Your task to perform on an android device: delete the emails in spam in the gmail app Image 0: 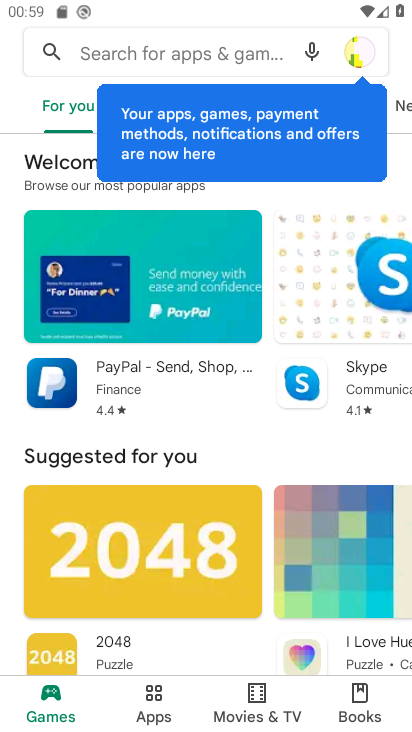
Step 0: press home button
Your task to perform on an android device: delete the emails in spam in the gmail app Image 1: 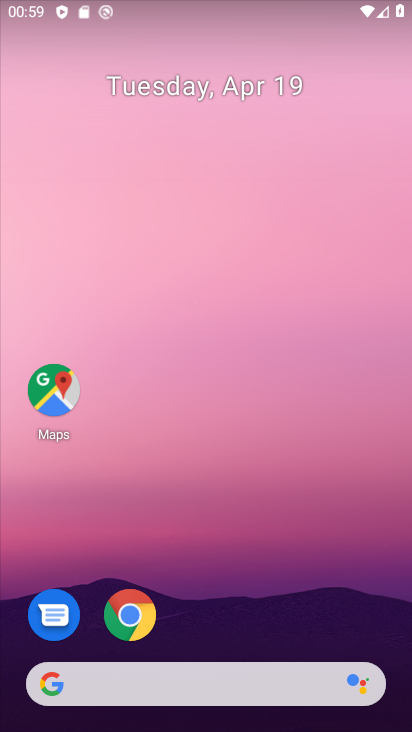
Step 1: drag from (190, 494) to (192, 212)
Your task to perform on an android device: delete the emails in spam in the gmail app Image 2: 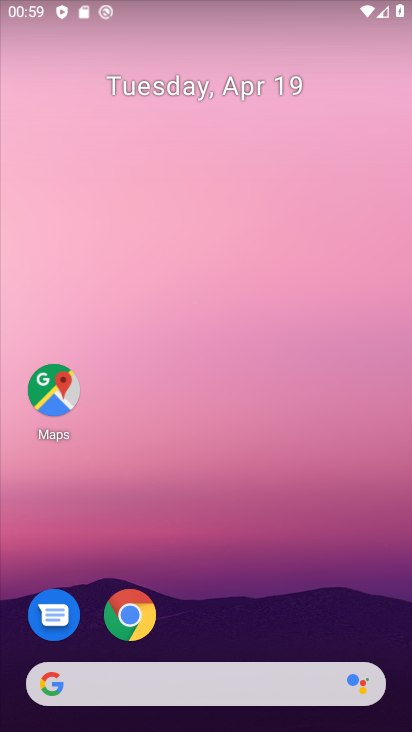
Step 2: drag from (228, 463) to (227, 82)
Your task to perform on an android device: delete the emails in spam in the gmail app Image 3: 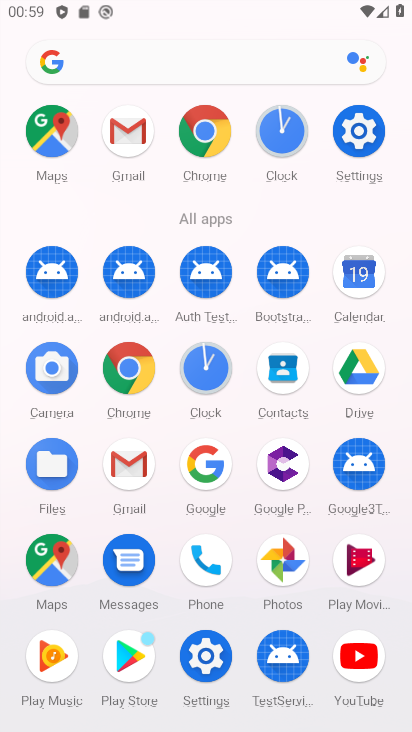
Step 3: drag from (173, 587) to (182, 390)
Your task to perform on an android device: delete the emails in spam in the gmail app Image 4: 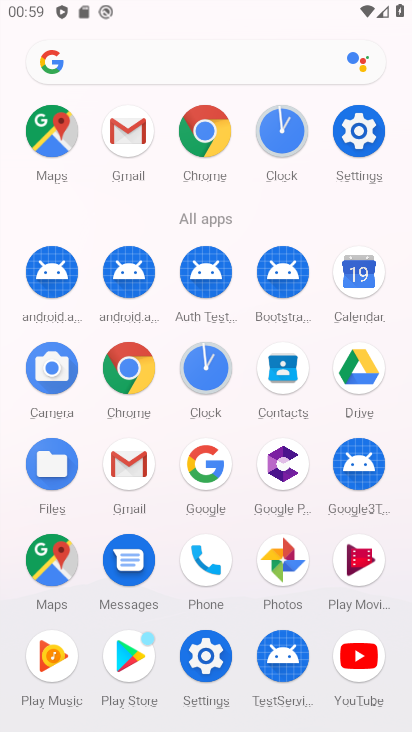
Step 4: click (130, 444)
Your task to perform on an android device: delete the emails in spam in the gmail app Image 5: 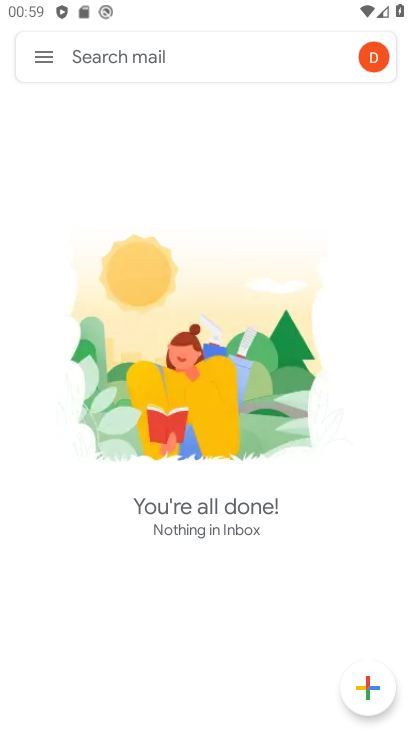
Step 5: task complete